Your task to perform on an android device: Open Android settings Image 0: 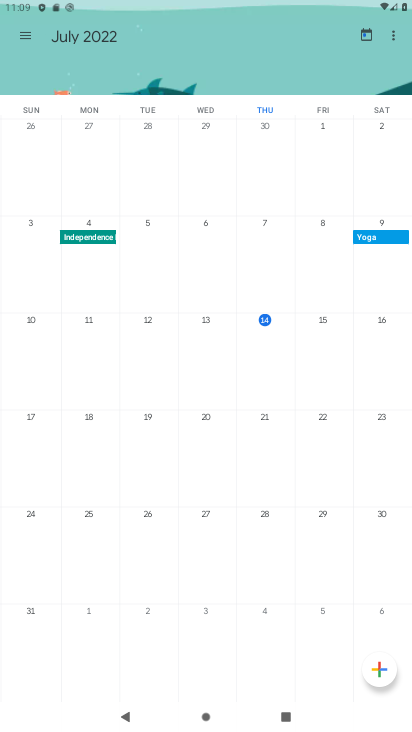
Step 0: press home button
Your task to perform on an android device: Open Android settings Image 1: 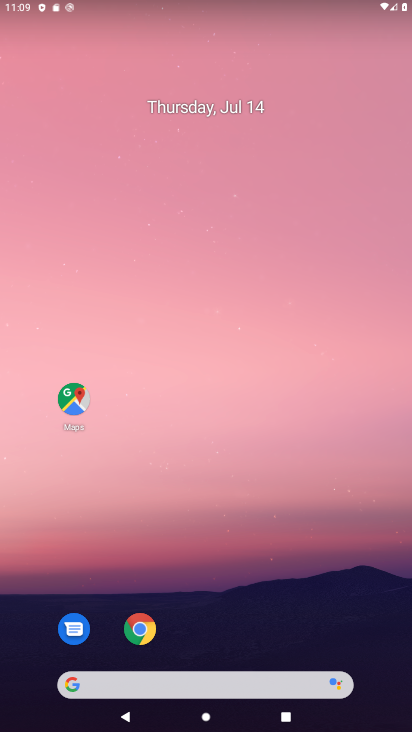
Step 1: drag from (271, 538) to (256, 112)
Your task to perform on an android device: Open Android settings Image 2: 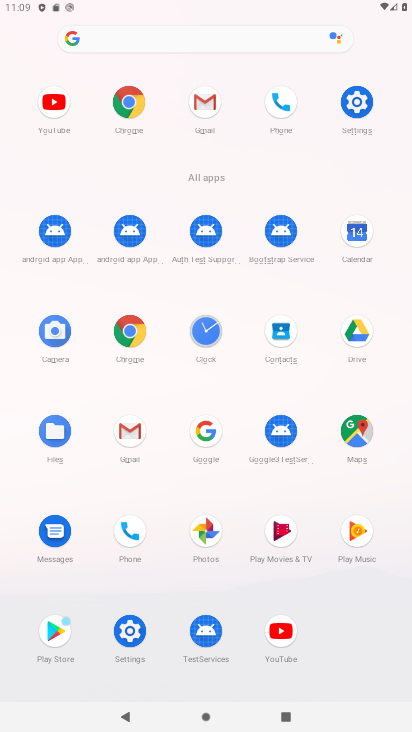
Step 2: click (357, 128)
Your task to perform on an android device: Open Android settings Image 3: 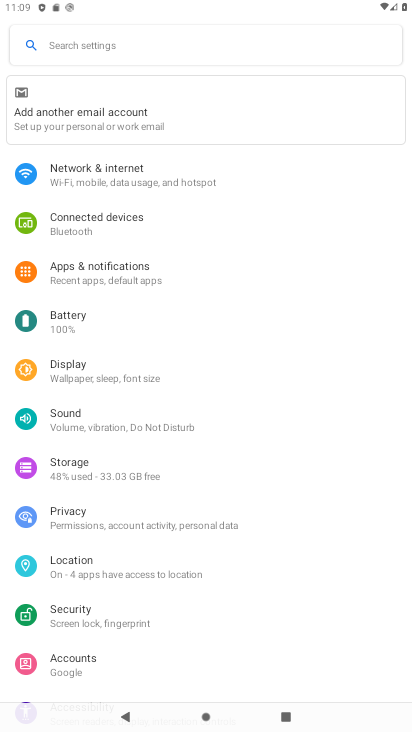
Step 3: drag from (200, 541) to (196, 6)
Your task to perform on an android device: Open Android settings Image 4: 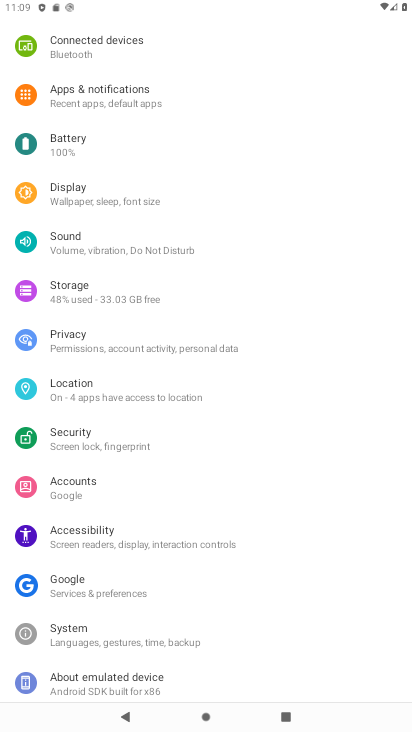
Step 4: drag from (86, 488) to (90, 206)
Your task to perform on an android device: Open Android settings Image 5: 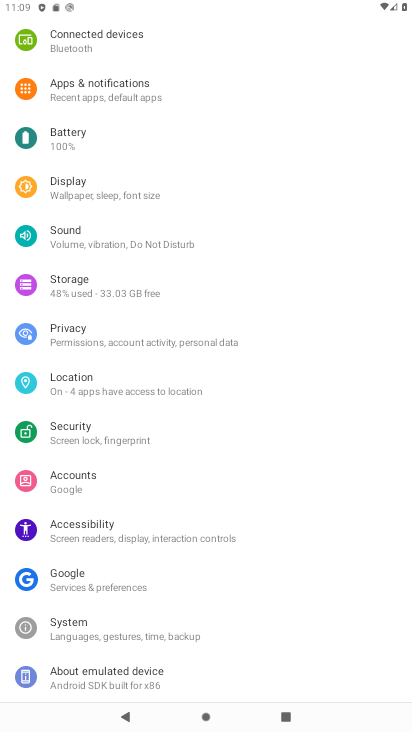
Step 5: click (151, 683)
Your task to perform on an android device: Open Android settings Image 6: 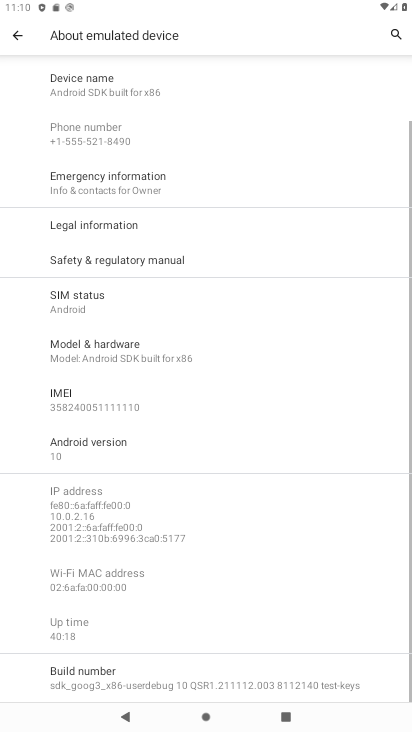
Step 6: click (129, 453)
Your task to perform on an android device: Open Android settings Image 7: 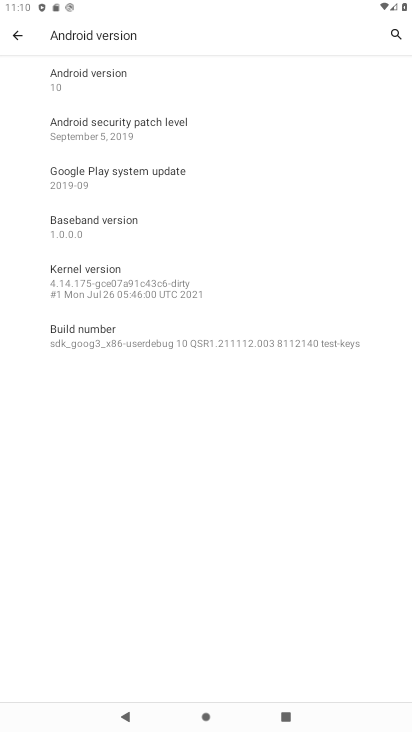
Step 7: click (86, 85)
Your task to perform on an android device: Open Android settings Image 8: 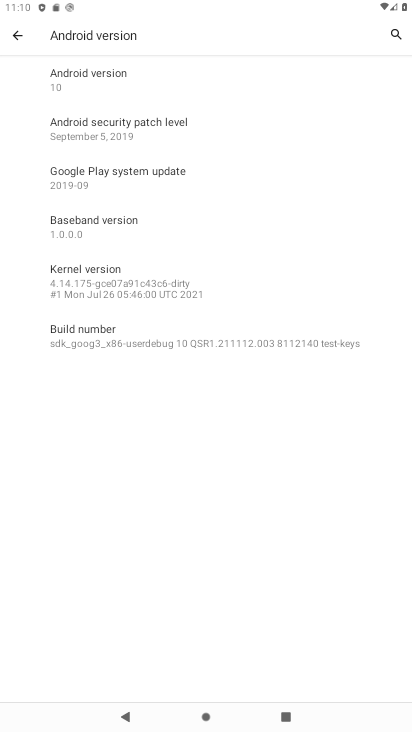
Step 8: click (74, 88)
Your task to perform on an android device: Open Android settings Image 9: 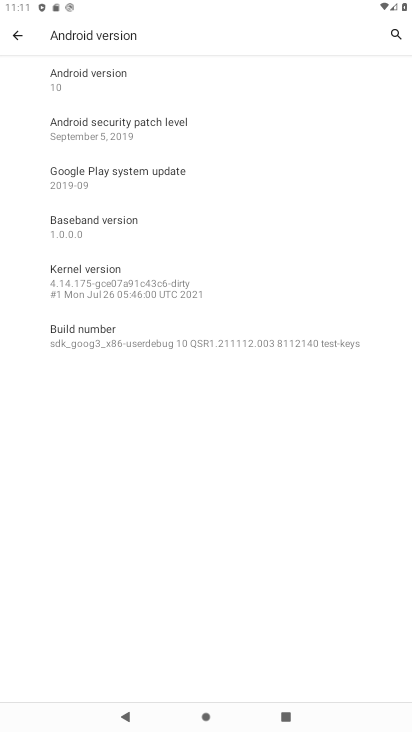
Step 9: task complete